Your task to perform on an android device: turn on wifi Image 0: 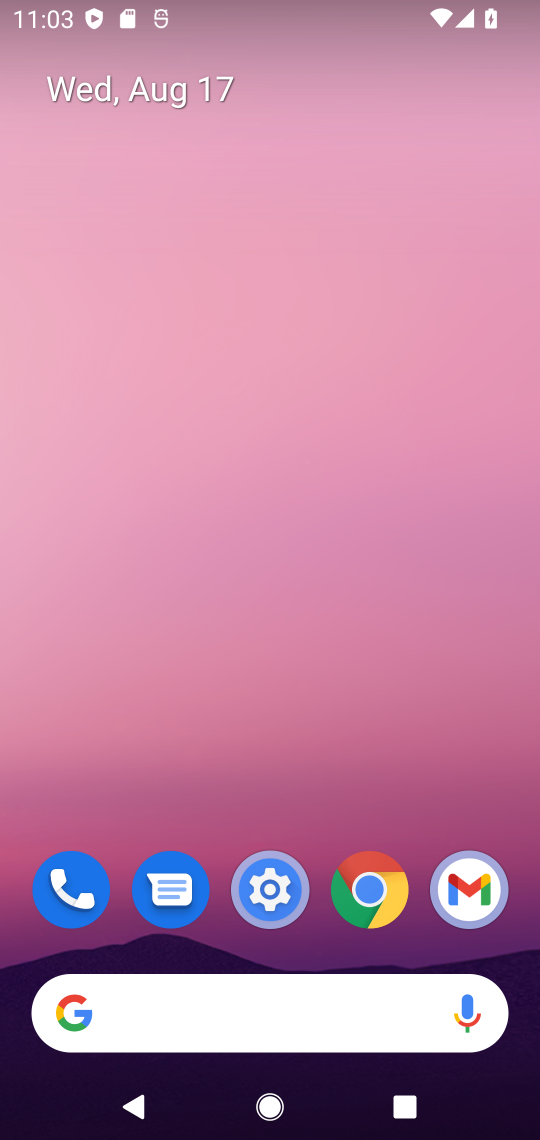
Step 0: drag from (305, 804) to (290, 41)
Your task to perform on an android device: turn on wifi Image 1: 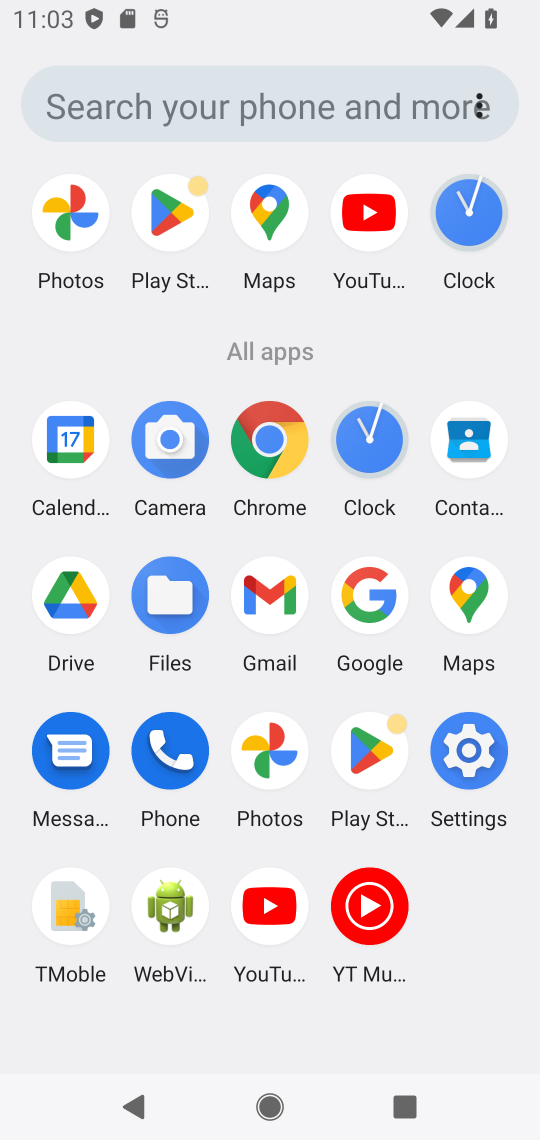
Step 1: click (460, 742)
Your task to perform on an android device: turn on wifi Image 2: 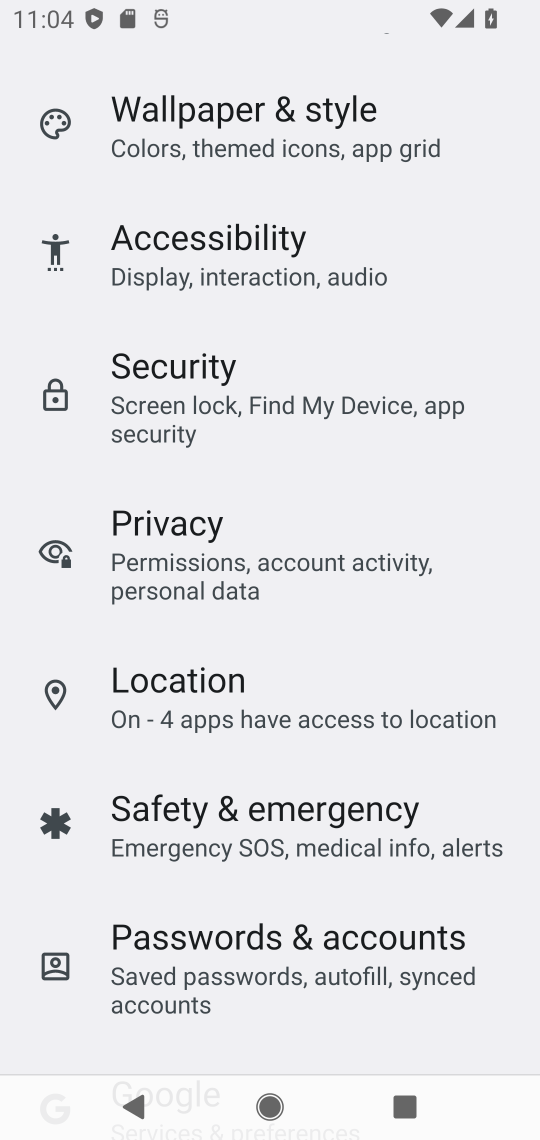
Step 2: drag from (314, 371) to (324, 1019)
Your task to perform on an android device: turn on wifi Image 3: 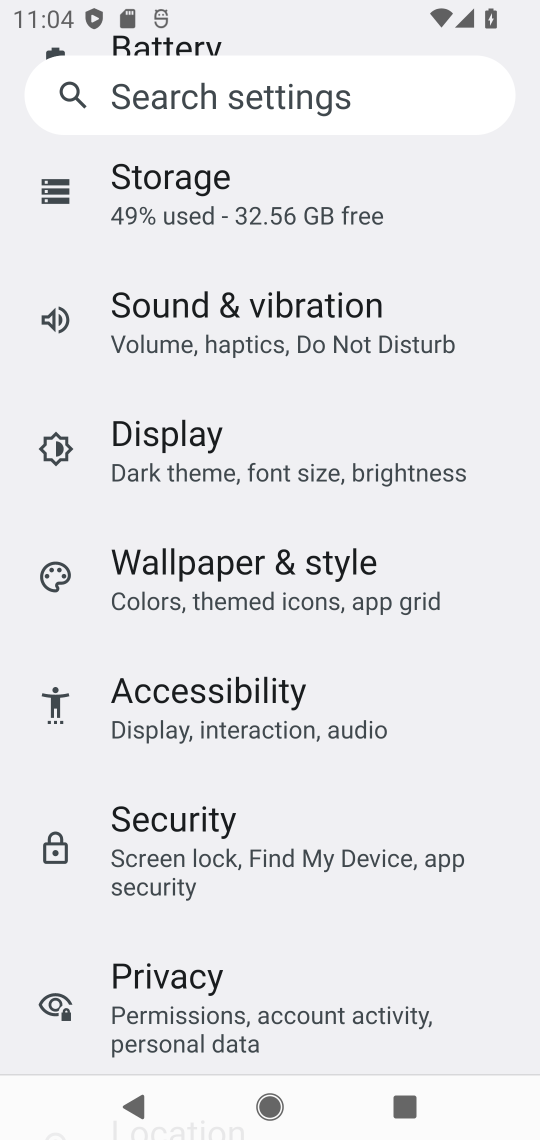
Step 3: drag from (302, 367) to (307, 975)
Your task to perform on an android device: turn on wifi Image 4: 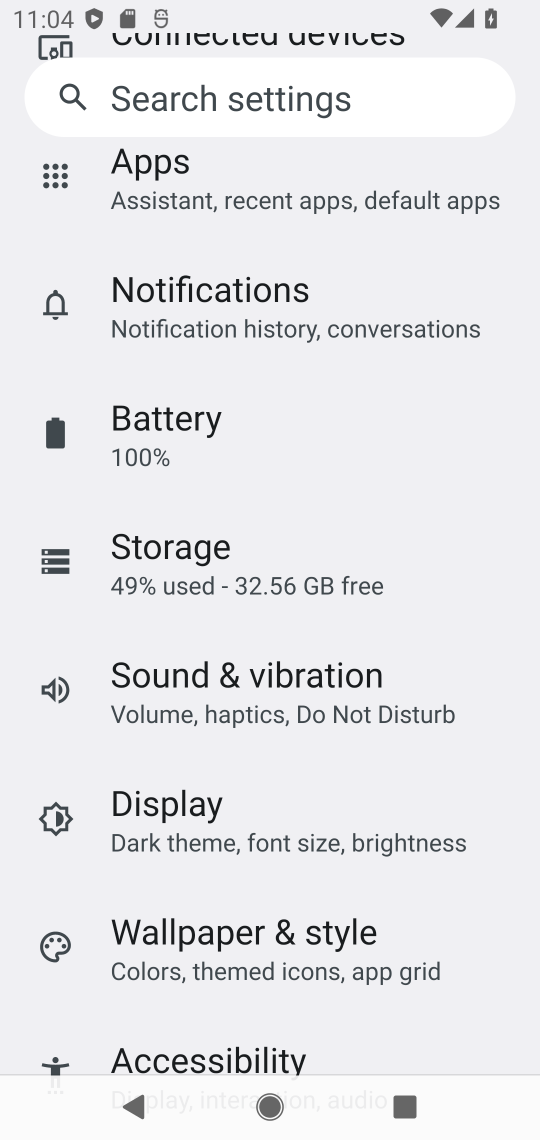
Step 4: drag from (310, 327) to (315, 861)
Your task to perform on an android device: turn on wifi Image 5: 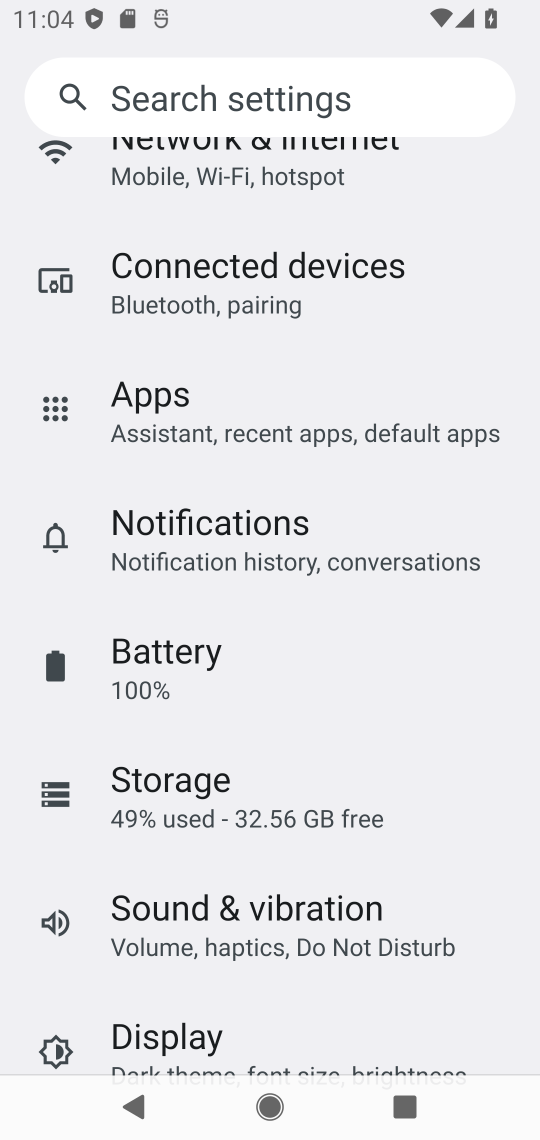
Step 5: drag from (269, 432) to (254, 996)
Your task to perform on an android device: turn on wifi Image 6: 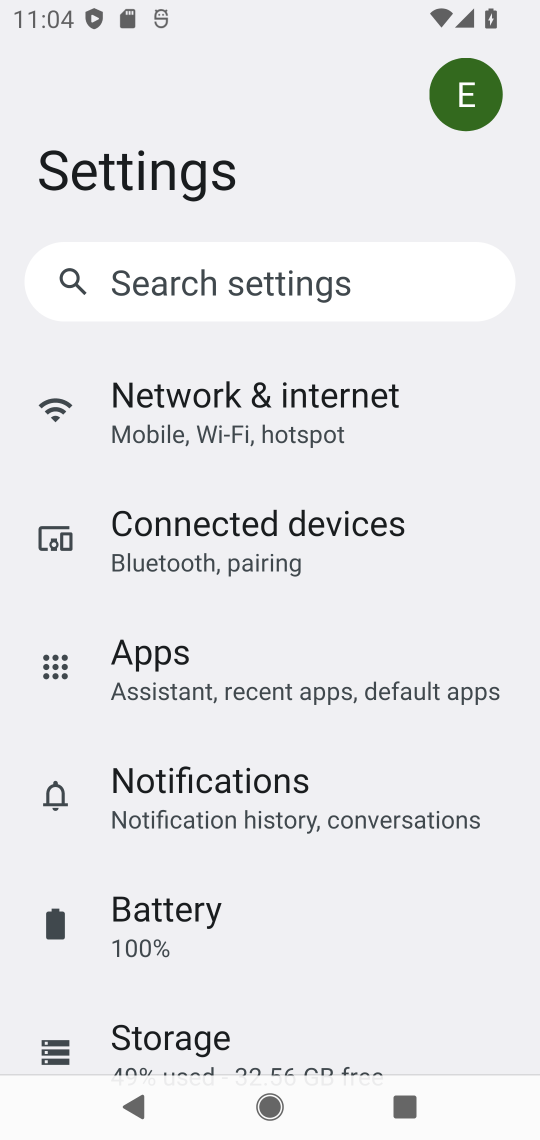
Step 6: click (294, 395)
Your task to perform on an android device: turn on wifi Image 7: 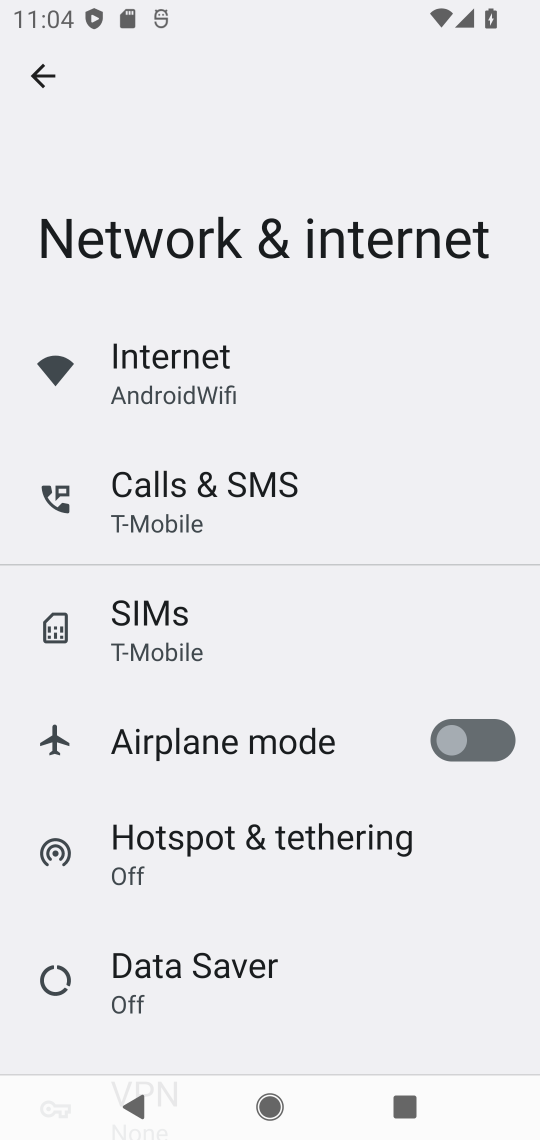
Step 7: click (171, 371)
Your task to perform on an android device: turn on wifi Image 8: 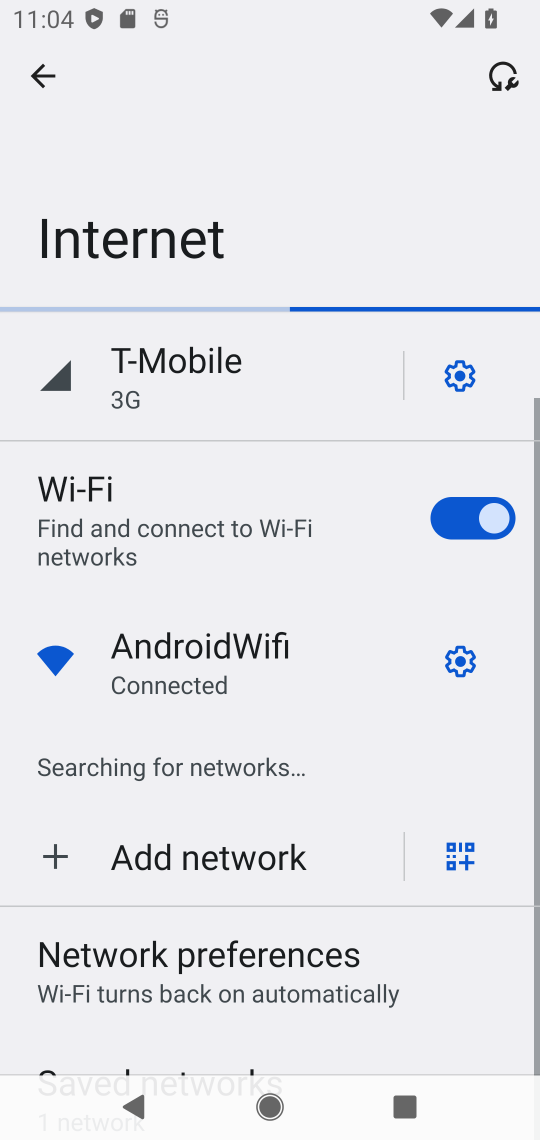
Step 8: task complete